Your task to perform on an android device: find snoozed emails in the gmail app Image 0: 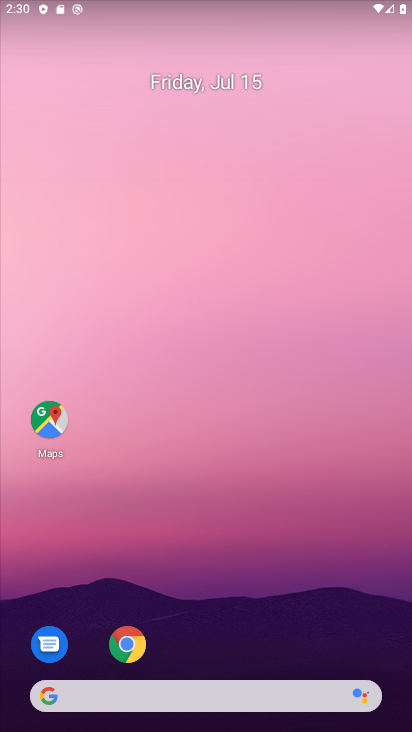
Step 0: drag from (234, 694) to (243, 12)
Your task to perform on an android device: find snoozed emails in the gmail app Image 1: 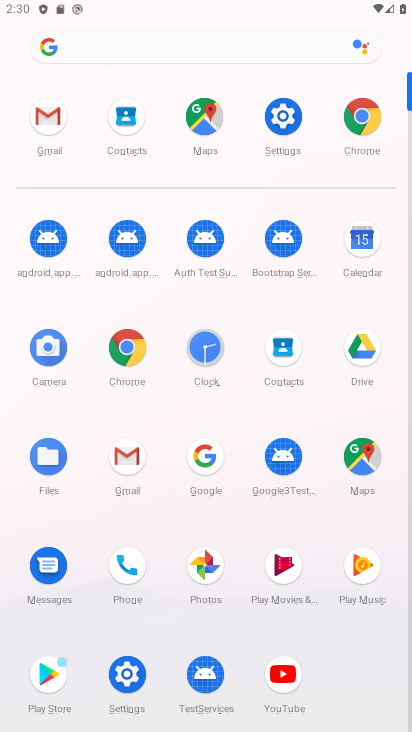
Step 1: click (122, 454)
Your task to perform on an android device: find snoozed emails in the gmail app Image 2: 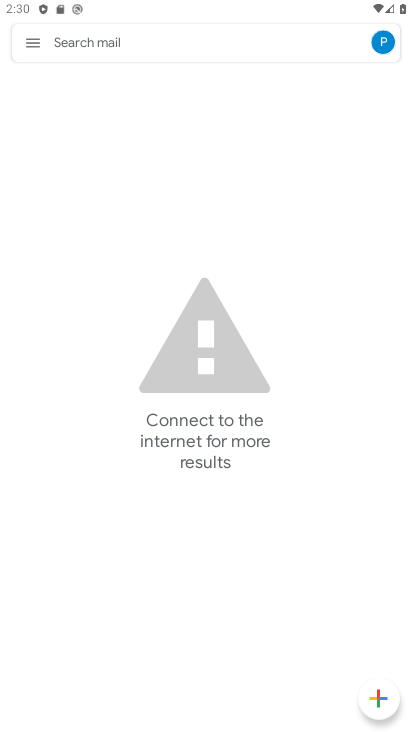
Step 2: click (34, 41)
Your task to perform on an android device: find snoozed emails in the gmail app Image 3: 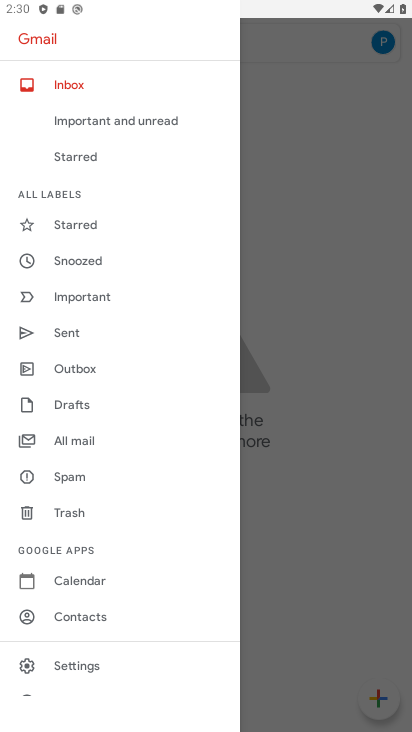
Step 3: click (101, 670)
Your task to perform on an android device: find snoozed emails in the gmail app Image 4: 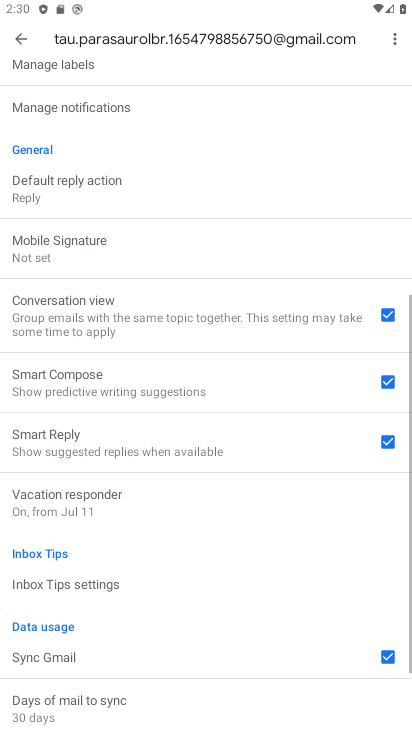
Step 4: press back button
Your task to perform on an android device: find snoozed emails in the gmail app Image 5: 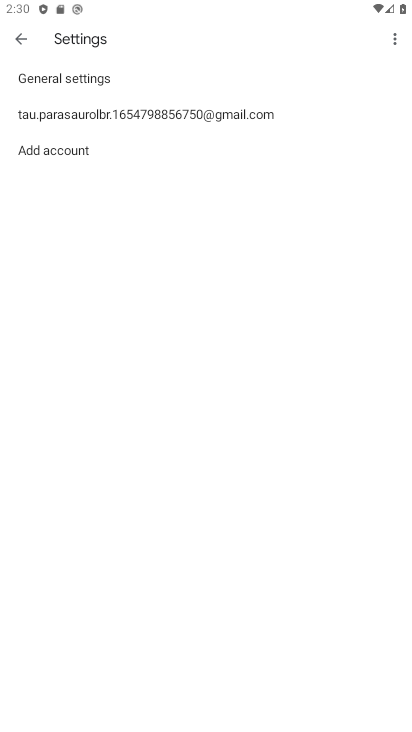
Step 5: press back button
Your task to perform on an android device: find snoozed emails in the gmail app Image 6: 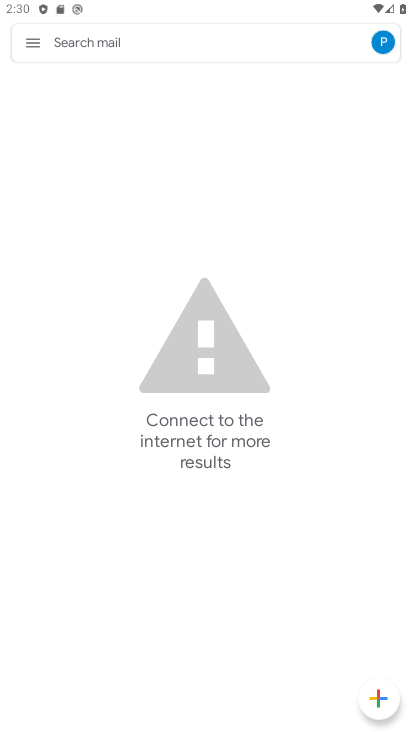
Step 6: click (32, 39)
Your task to perform on an android device: find snoozed emails in the gmail app Image 7: 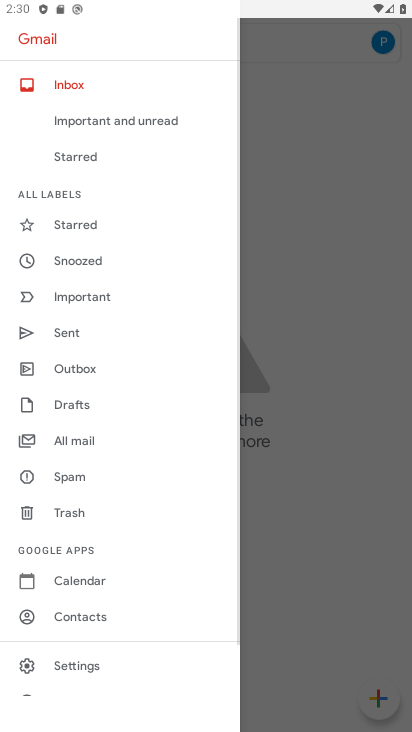
Step 7: click (100, 263)
Your task to perform on an android device: find snoozed emails in the gmail app Image 8: 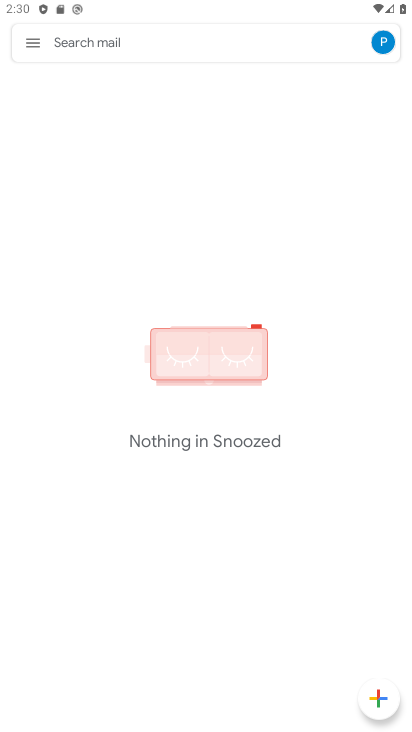
Step 8: task complete